Your task to perform on an android device: check data usage Image 0: 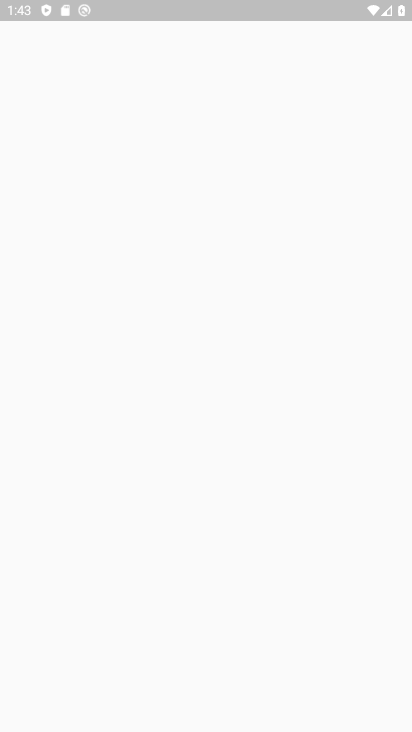
Step 0: press home button
Your task to perform on an android device: check data usage Image 1: 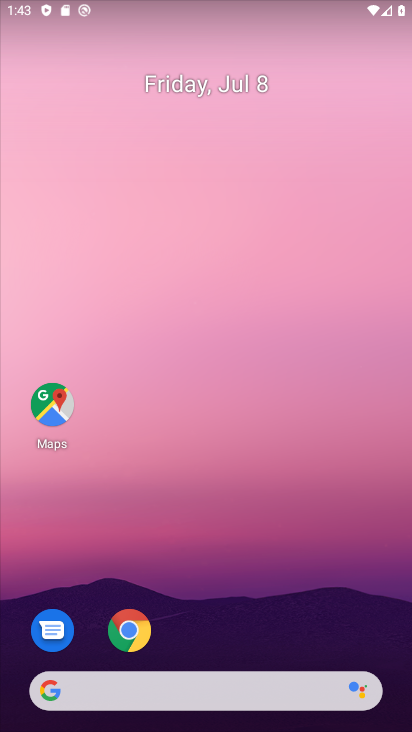
Step 1: drag from (245, 557) to (243, 100)
Your task to perform on an android device: check data usage Image 2: 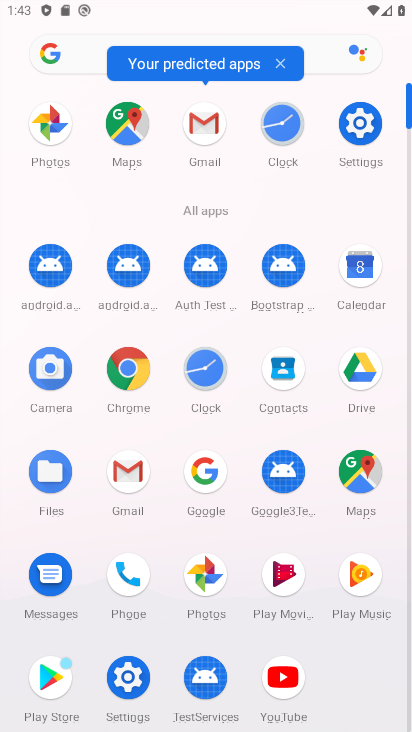
Step 2: click (358, 127)
Your task to perform on an android device: check data usage Image 3: 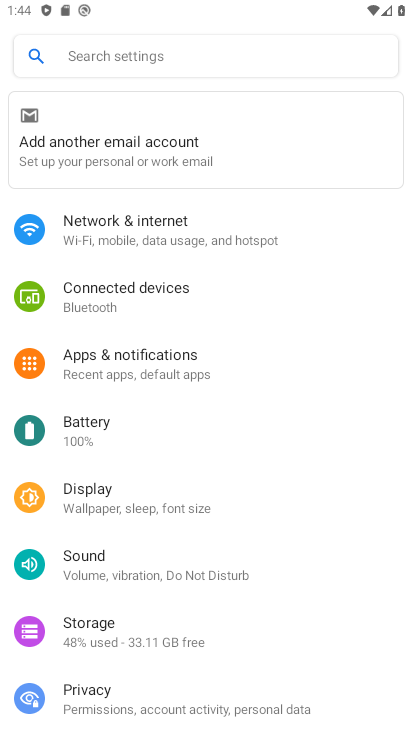
Step 3: click (157, 634)
Your task to perform on an android device: check data usage Image 4: 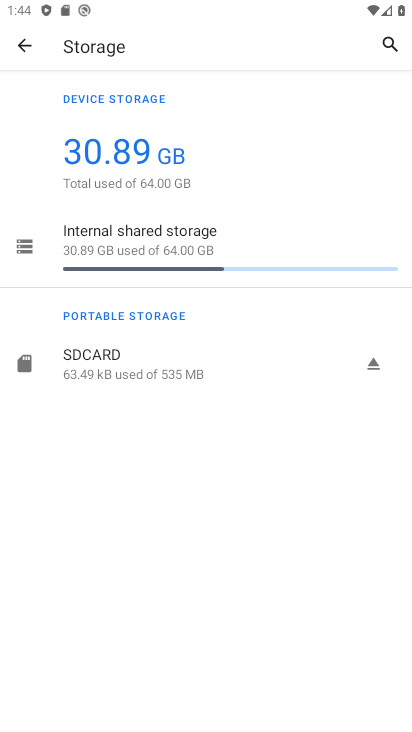
Step 4: task complete